Your task to perform on an android device: turn on showing notifications on the lock screen Image 0: 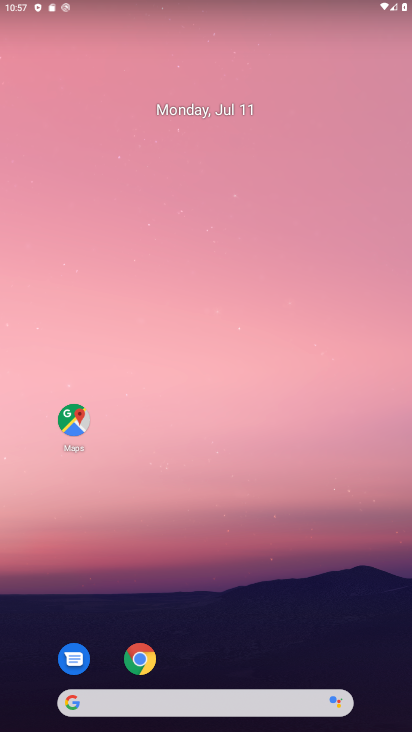
Step 0: drag from (310, 534) to (367, 127)
Your task to perform on an android device: turn on showing notifications on the lock screen Image 1: 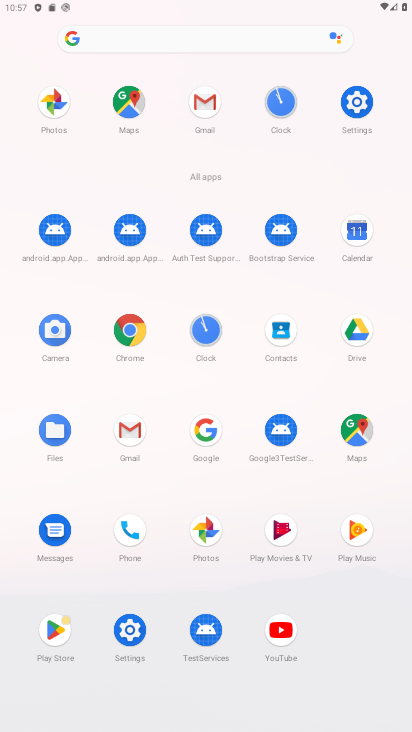
Step 1: click (356, 93)
Your task to perform on an android device: turn on showing notifications on the lock screen Image 2: 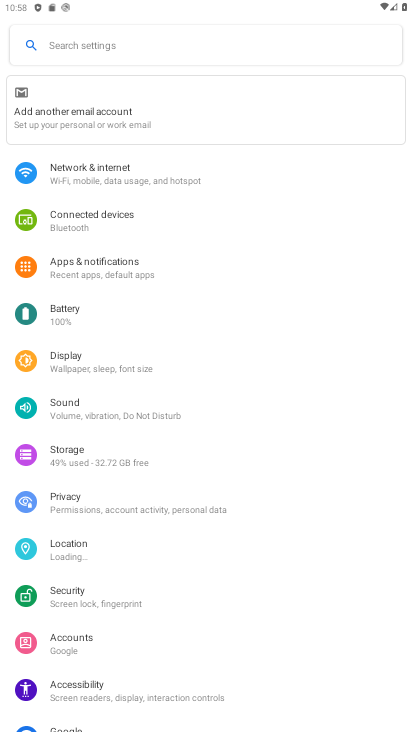
Step 2: drag from (221, 644) to (321, 191)
Your task to perform on an android device: turn on showing notifications on the lock screen Image 3: 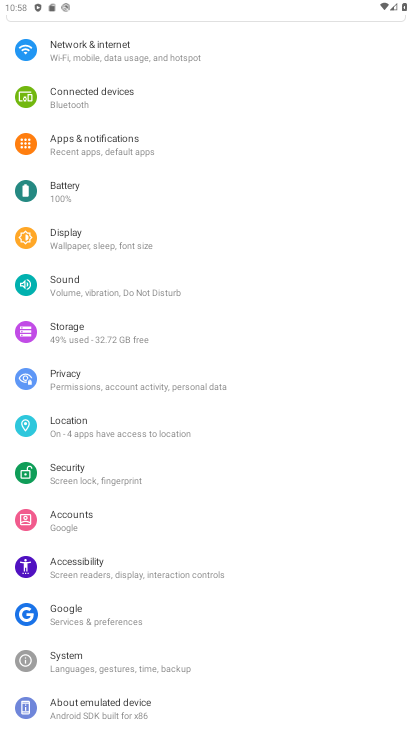
Step 3: drag from (232, 199) to (205, 730)
Your task to perform on an android device: turn on showing notifications on the lock screen Image 4: 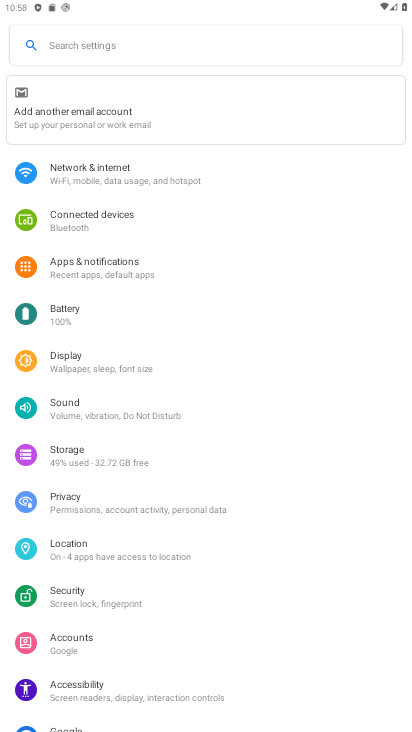
Step 4: click (108, 257)
Your task to perform on an android device: turn on showing notifications on the lock screen Image 5: 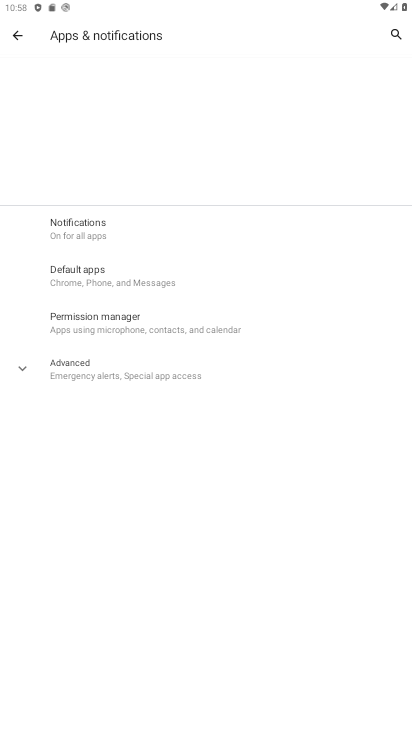
Step 5: click (85, 228)
Your task to perform on an android device: turn on showing notifications on the lock screen Image 6: 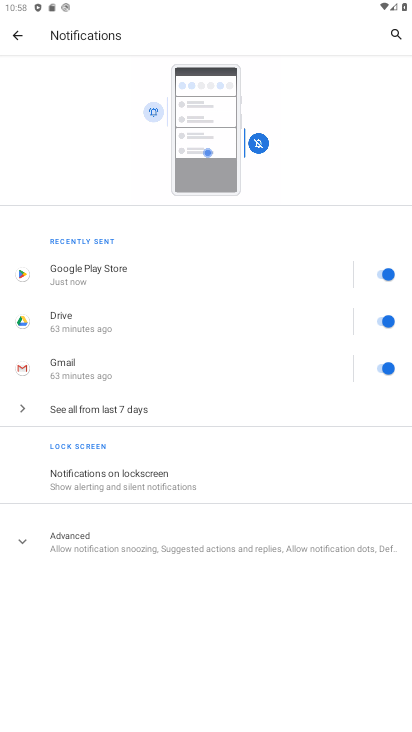
Step 6: click (99, 552)
Your task to perform on an android device: turn on showing notifications on the lock screen Image 7: 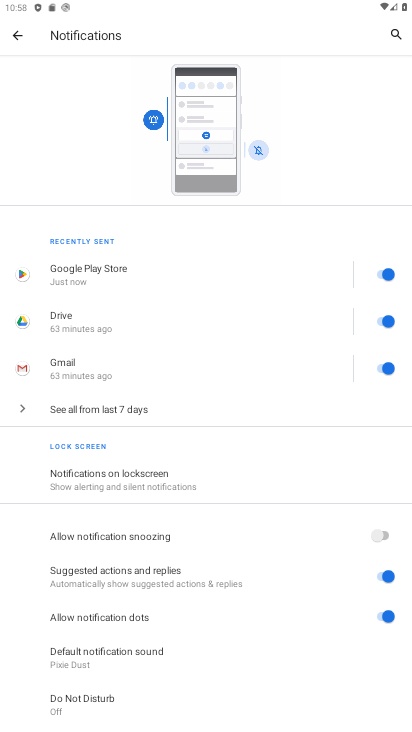
Step 7: drag from (183, 655) to (181, 237)
Your task to perform on an android device: turn on showing notifications on the lock screen Image 8: 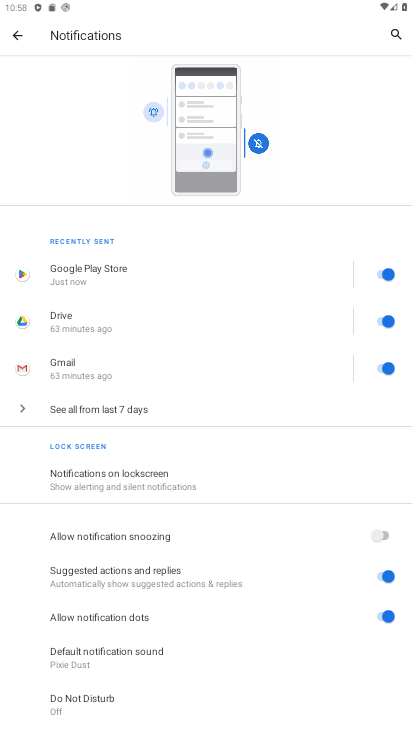
Step 8: click (66, 477)
Your task to perform on an android device: turn on showing notifications on the lock screen Image 9: 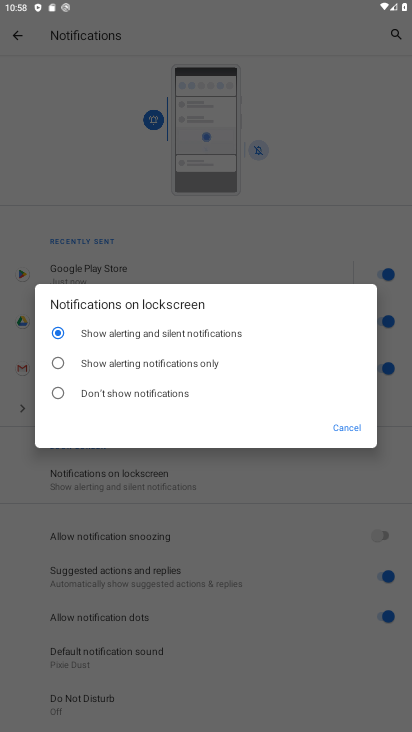
Step 9: click (80, 365)
Your task to perform on an android device: turn on showing notifications on the lock screen Image 10: 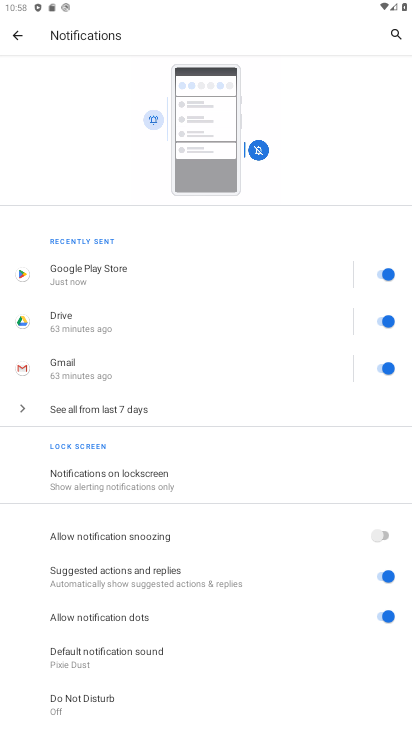
Step 10: task complete